Your task to perform on an android device: turn on priority inbox in the gmail app Image 0: 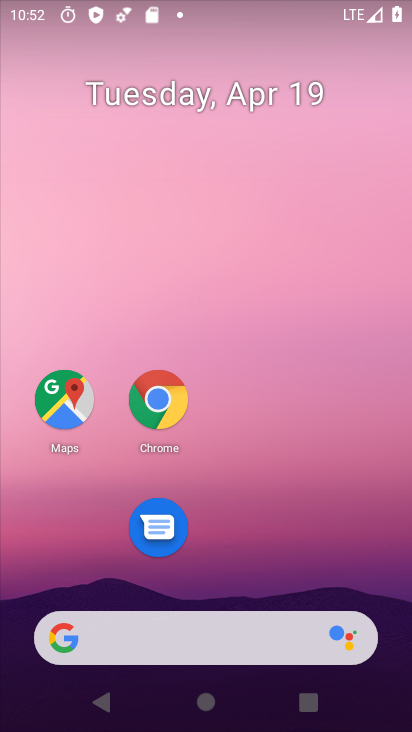
Step 0: drag from (292, 676) to (258, 49)
Your task to perform on an android device: turn on priority inbox in the gmail app Image 1: 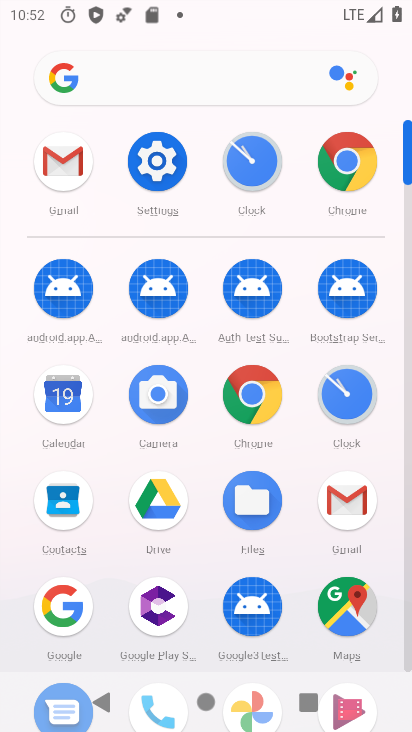
Step 1: click (338, 498)
Your task to perform on an android device: turn on priority inbox in the gmail app Image 2: 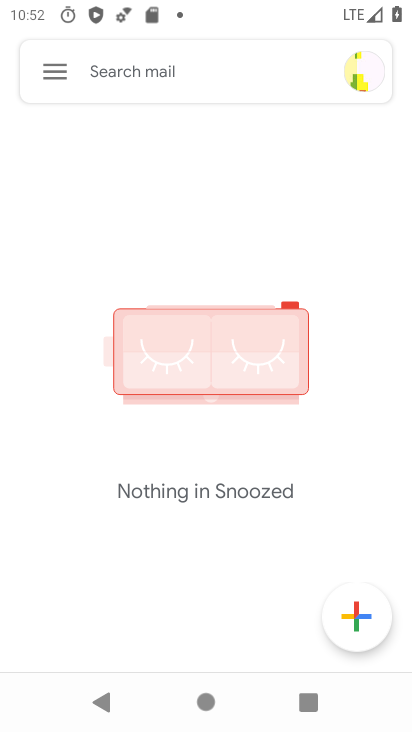
Step 2: click (64, 63)
Your task to perform on an android device: turn on priority inbox in the gmail app Image 3: 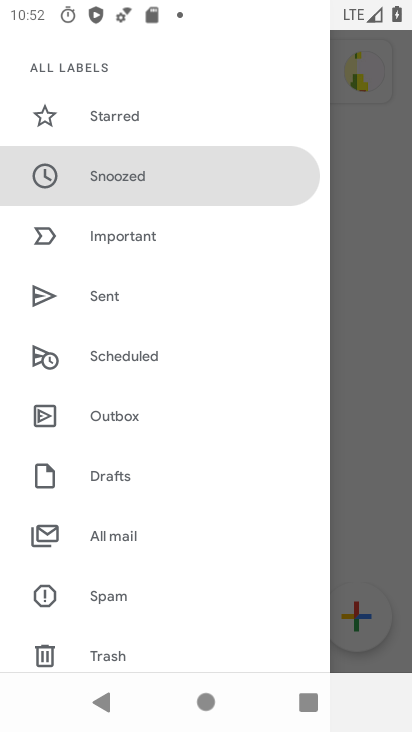
Step 3: drag from (115, 192) to (143, 29)
Your task to perform on an android device: turn on priority inbox in the gmail app Image 4: 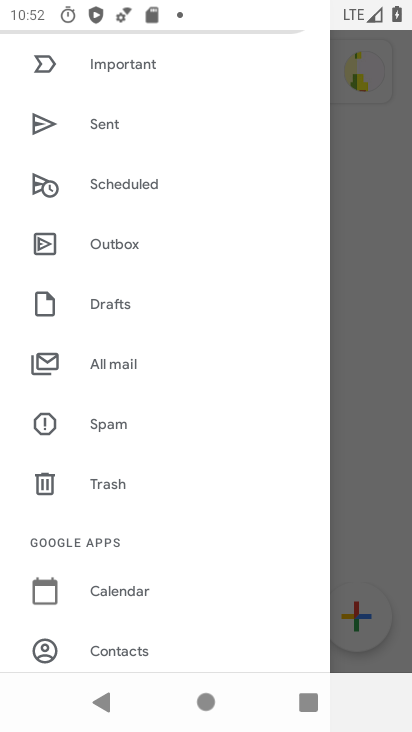
Step 4: drag from (98, 548) to (115, 390)
Your task to perform on an android device: turn on priority inbox in the gmail app Image 5: 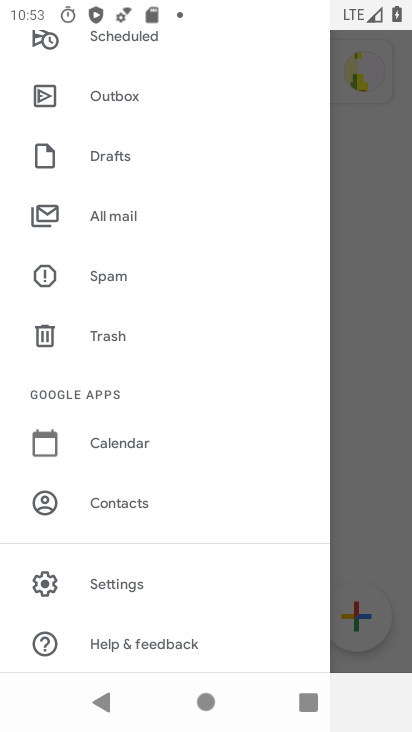
Step 5: click (107, 580)
Your task to perform on an android device: turn on priority inbox in the gmail app Image 6: 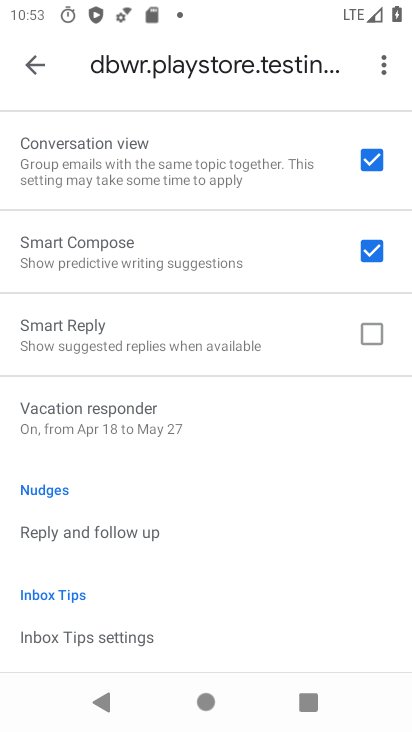
Step 6: drag from (165, 179) to (213, 695)
Your task to perform on an android device: turn on priority inbox in the gmail app Image 7: 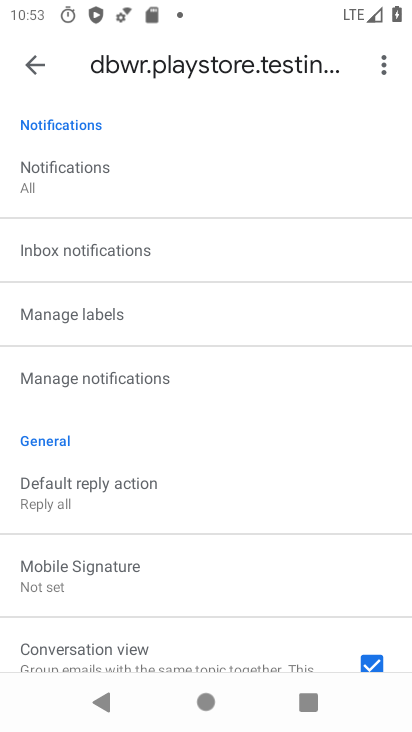
Step 7: drag from (170, 178) to (200, 613)
Your task to perform on an android device: turn on priority inbox in the gmail app Image 8: 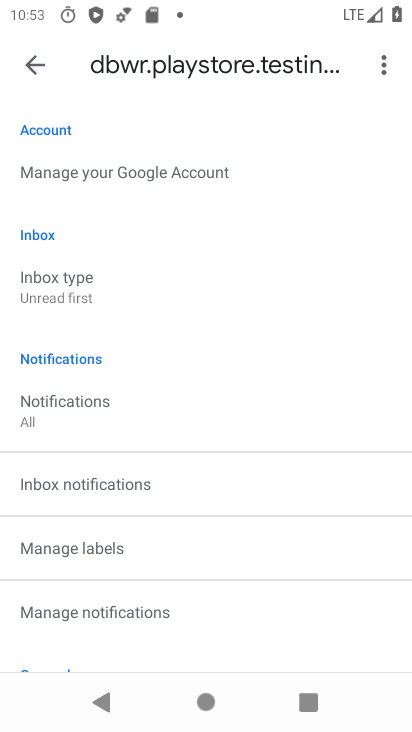
Step 8: click (116, 265)
Your task to perform on an android device: turn on priority inbox in the gmail app Image 9: 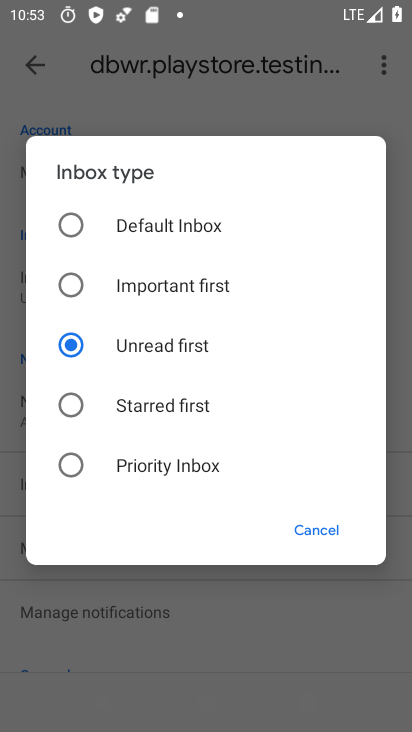
Step 9: click (126, 464)
Your task to perform on an android device: turn on priority inbox in the gmail app Image 10: 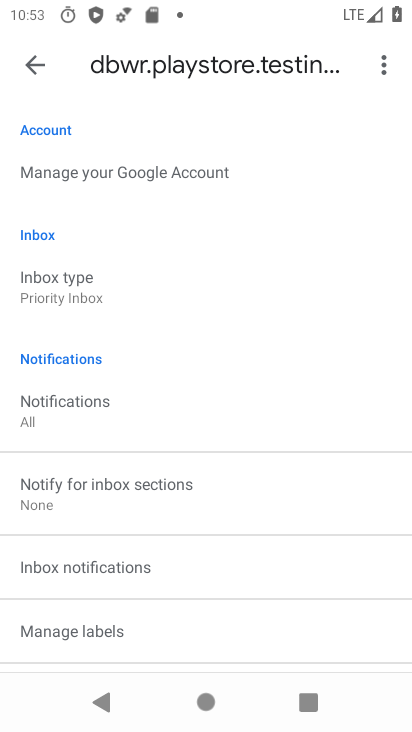
Step 10: task complete